Your task to perform on an android device: Open calendar and show me the first week of next month Image 0: 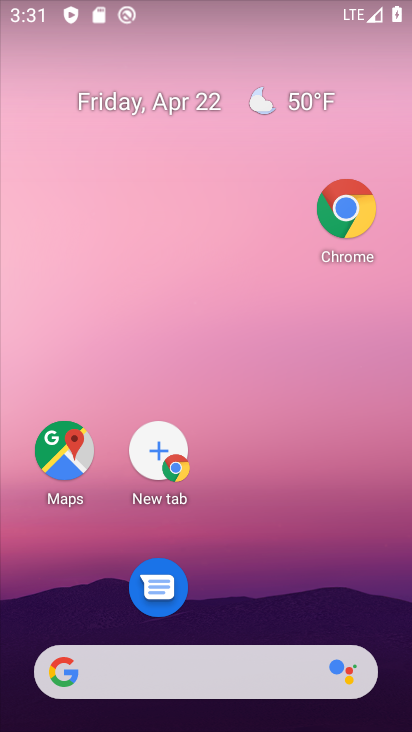
Step 0: click (172, 99)
Your task to perform on an android device: Open calendar and show me the first week of next month Image 1: 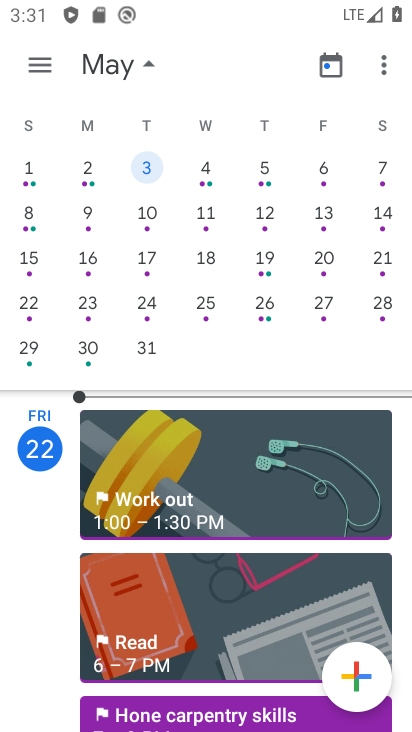
Step 1: click (161, 163)
Your task to perform on an android device: Open calendar and show me the first week of next month Image 2: 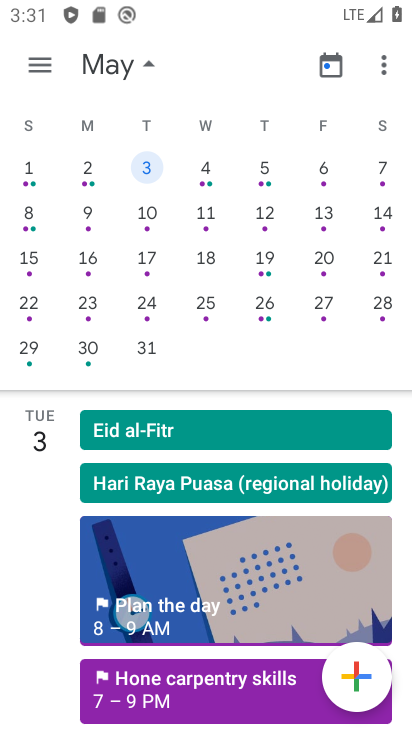
Step 2: task complete